Your task to perform on an android device: Open Google Maps Image 0: 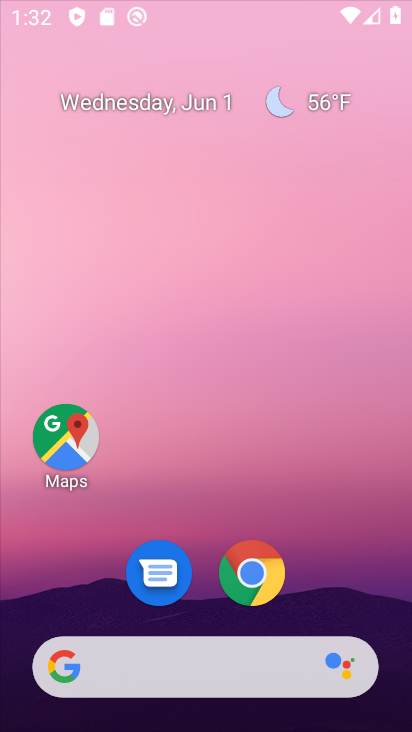
Step 0: click (229, 146)
Your task to perform on an android device: Open Google Maps Image 1: 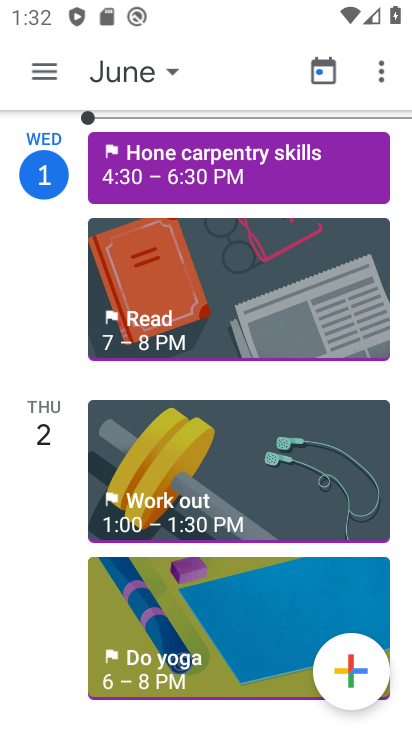
Step 1: press home button
Your task to perform on an android device: Open Google Maps Image 2: 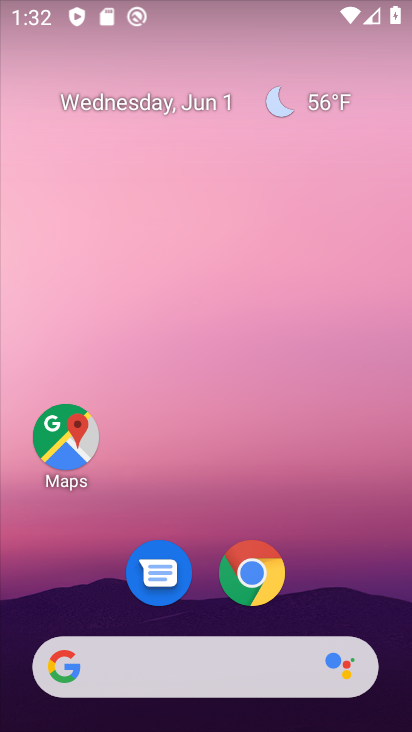
Step 2: drag from (204, 597) to (205, 172)
Your task to perform on an android device: Open Google Maps Image 3: 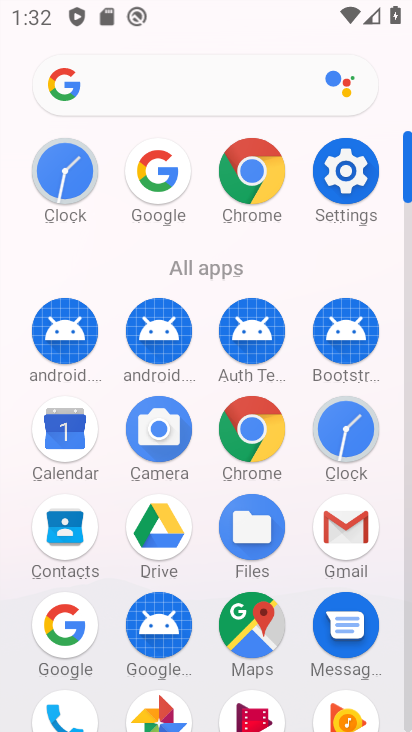
Step 3: click (260, 632)
Your task to perform on an android device: Open Google Maps Image 4: 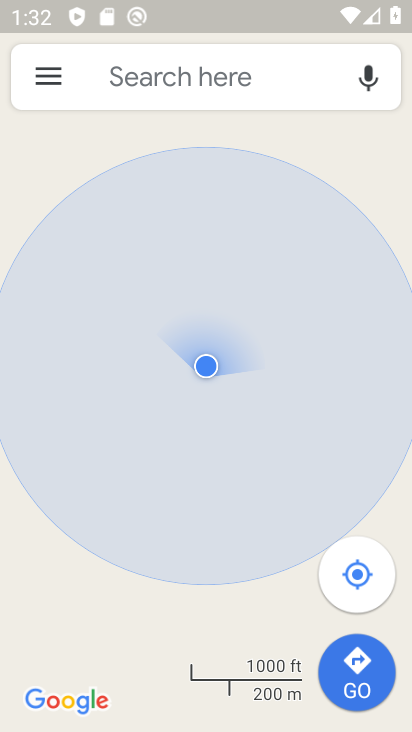
Step 4: task complete